Your task to perform on an android device: Search for vegetarian restaurants on Maps Image 0: 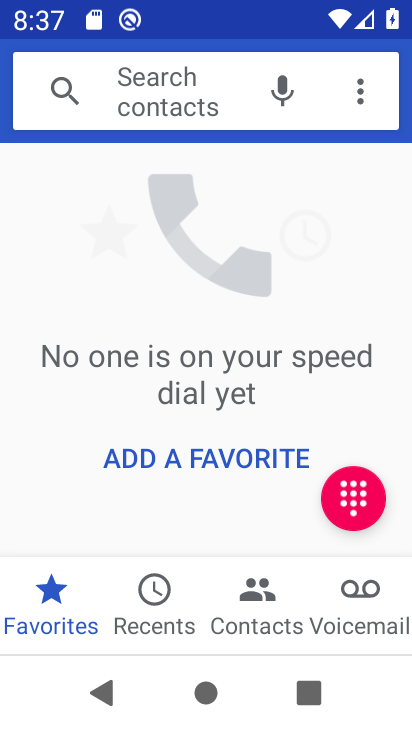
Step 0: press home button
Your task to perform on an android device: Search for vegetarian restaurants on Maps Image 1: 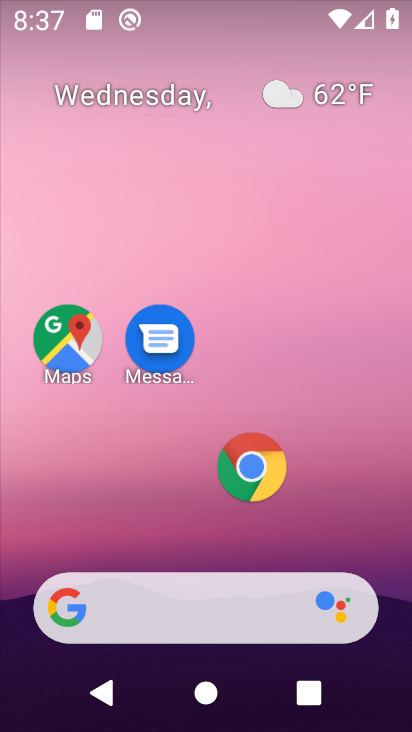
Step 1: click (72, 343)
Your task to perform on an android device: Search for vegetarian restaurants on Maps Image 2: 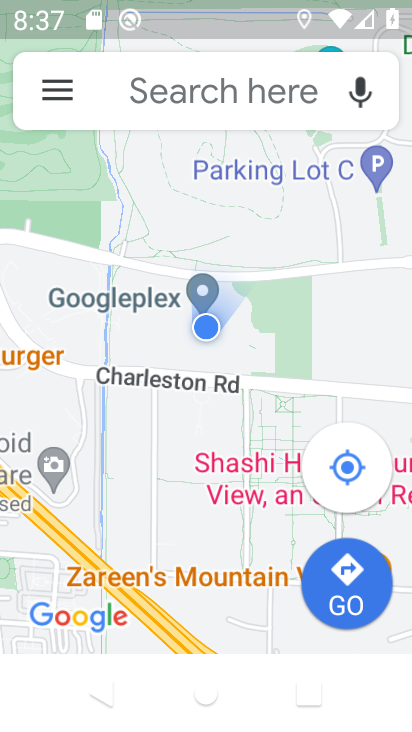
Step 2: click (185, 96)
Your task to perform on an android device: Search for vegetarian restaurants on Maps Image 3: 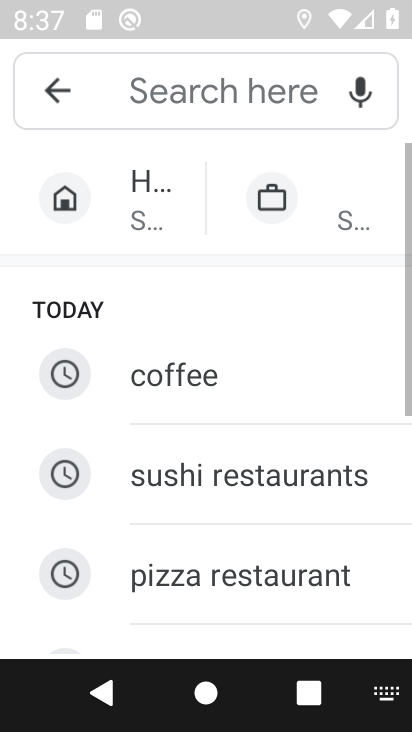
Step 3: click (163, 95)
Your task to perform on an android device: Search for vegetarian restaurants on Maps Image 4: 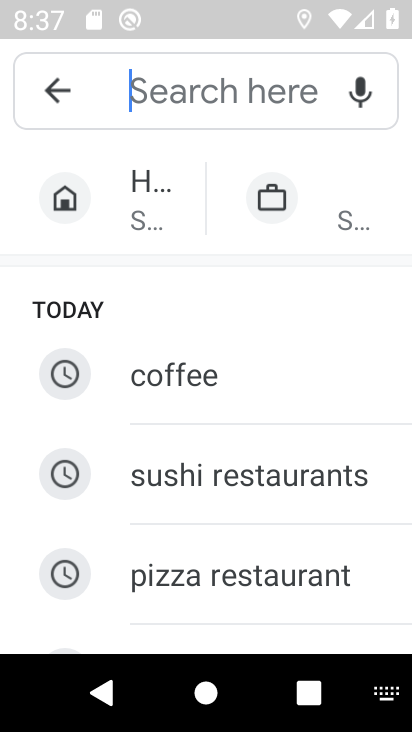
Step 4: drag from (211, 536) to (234, 286)
Your task to perform on an android device: Search for vegetarian restaurants on Maps Image 5: 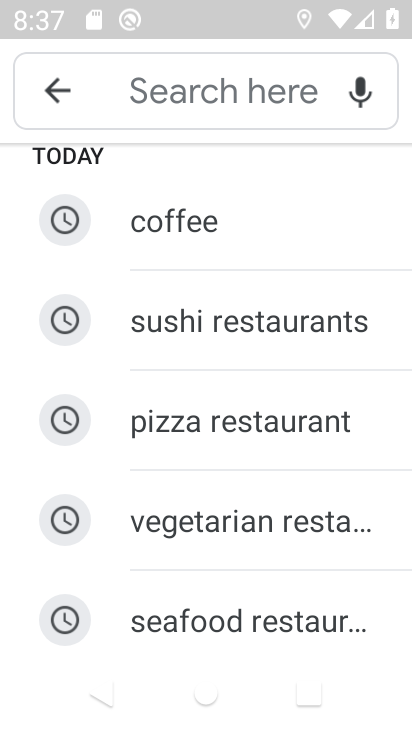
Step 5: click (200, 523)
Your task to perform on an android device: Search for vegetarian restaurants on Maps Image 6: 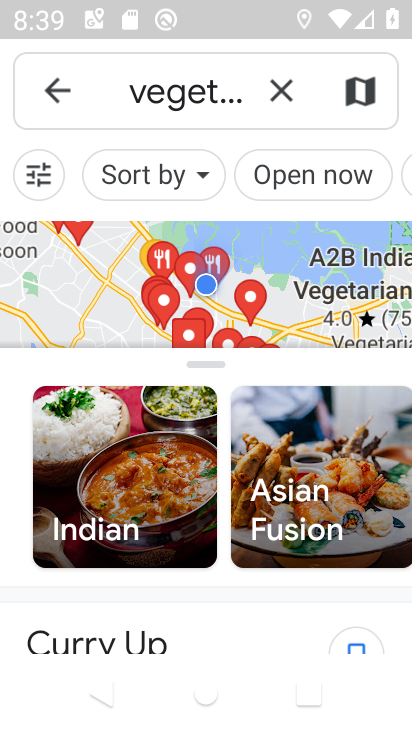
Step 6: task complete